Your task to perform on an android device: Is it going to rain this weekend? Image 0: 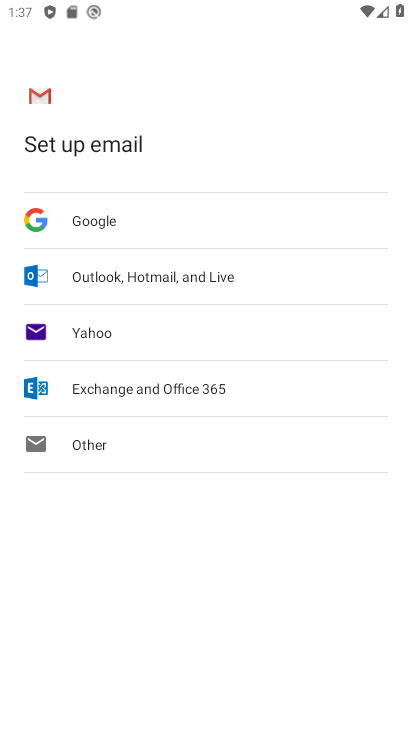
Step 0: press back button
Your task to perform on an android device: Is it going to rain this weekend? Image 1: 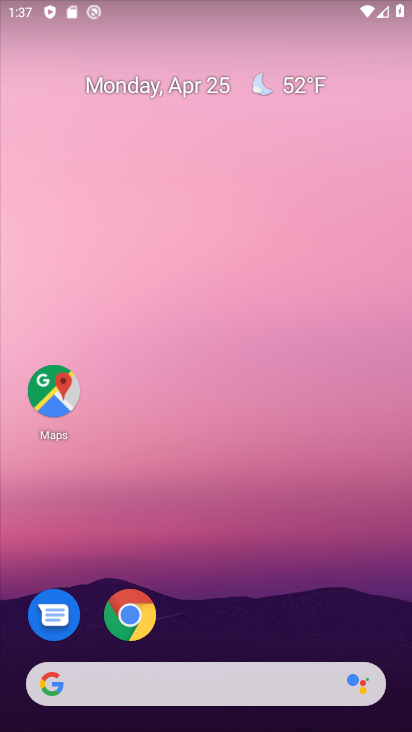
Step 1: drag from (259, 540) to (238, 94)
Your task to perform on an android device: Is it going to rain this weekend? Image 2: 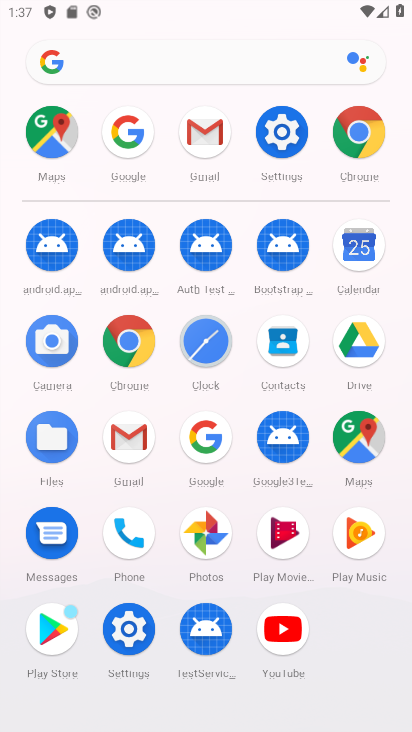
Step 2: click (205, 432)
Your task to perform on an android device: Is it going to rain this weekend? Image 3: 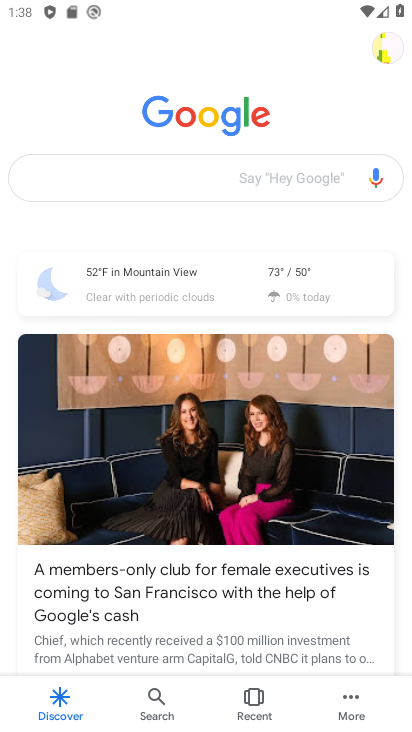
Step 3: click (248, 183)
Your task to perform on an android device: Is it going to rain this weekend? Image 4: 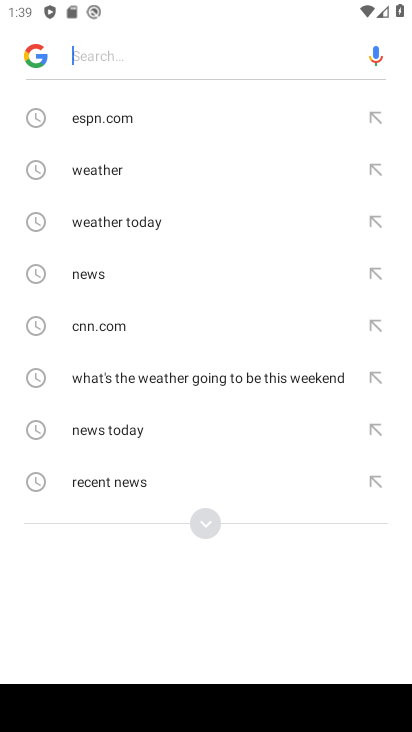
Step 4: type "is it going to rain this weekend?"
Your task to perform on an android device: Is it going to rain this weekend? Image 5: 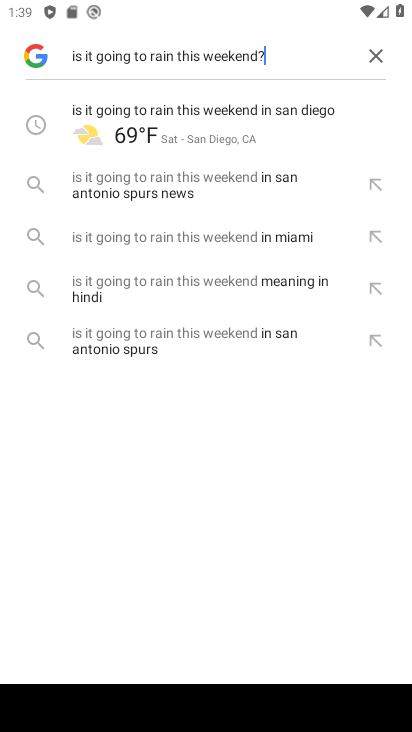
Step 5: click (210, 114)
Your task to perform on an android device: Is it going to rain this weekend? Image 6: 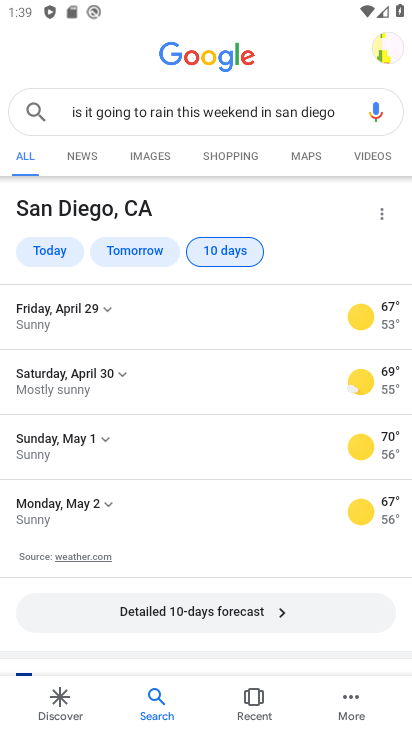
Step 6: task complete